Your task to perform on an android device: Go to privacy settings Image 0: 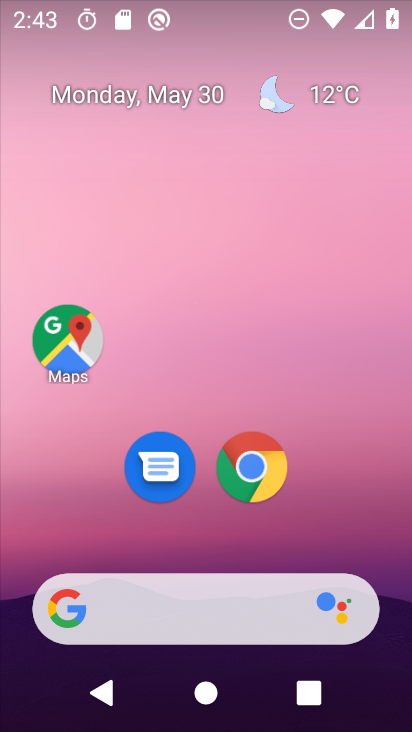
Step 0: drag from (377, 647) to (328, 210)
Your task to perform on an android device: Go to privacy settings Image 1: 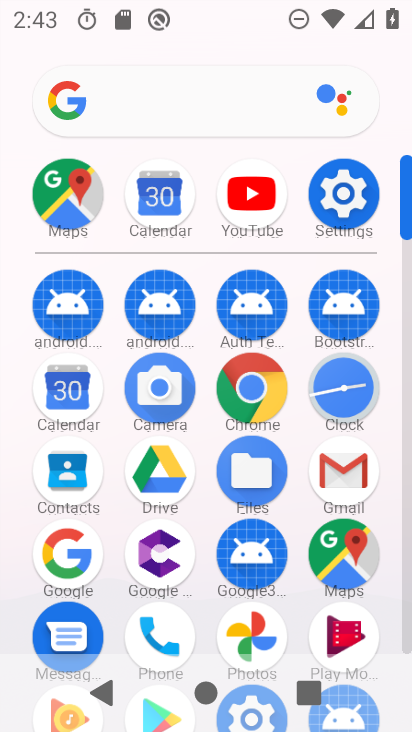
Step 1: click (239, 393)
Your task to perform on an android device: Go to privacy settings Image 2: 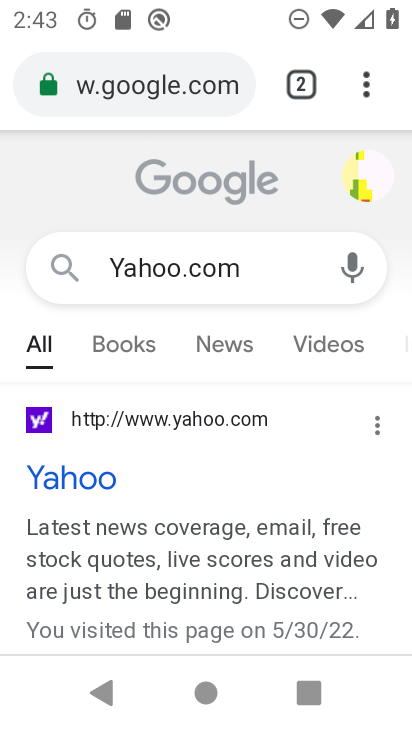
Step 2: click (360, 82)
Your task to perform on an android device: Go to privacy settings Image 3: 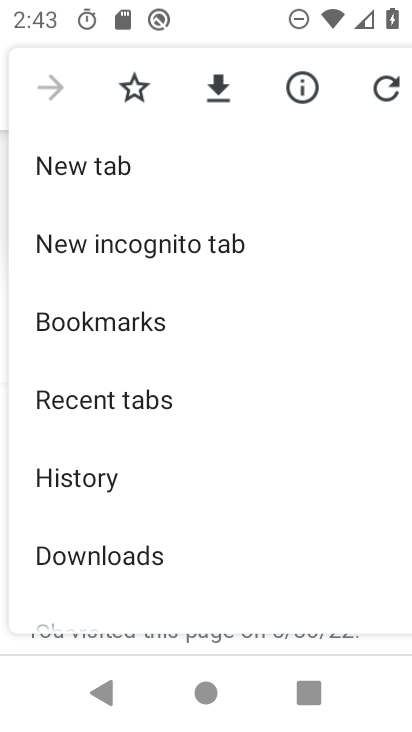
Step 3: drag from (234, 571) to (202, 262)
Your task to perform on an android device: Go to privacy settings Image 4: 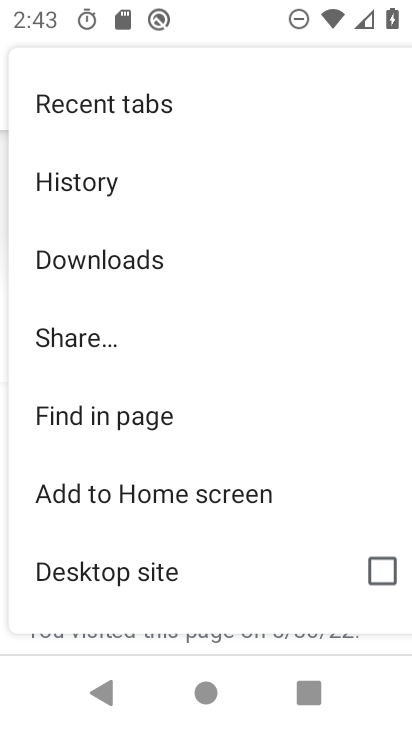
Step 4: drag from (262, 586) to (215, 258)
Your task to perform on an android device: Go to privacy settings Image 5: 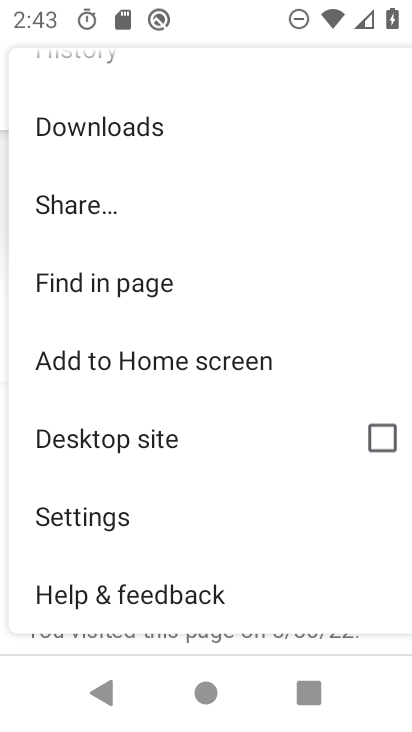
Step 5: click (100, 512)
Your task to perform on an android device: Go to privacy settings Image 6: 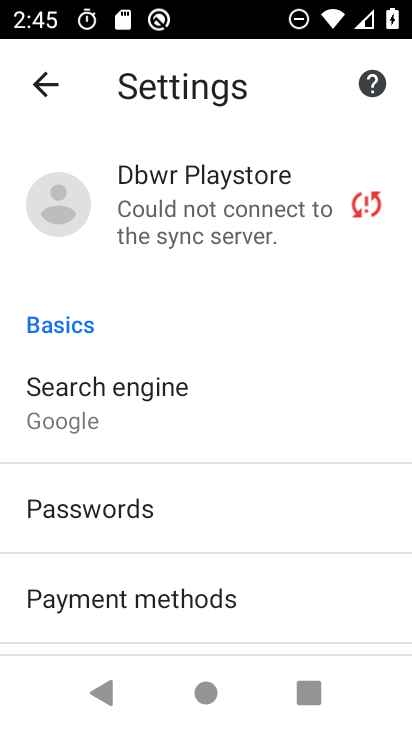
Step 6: drag from (252, 592) to (246, 347)
Your task to perform on an android device: Go to privacy settings Image 7: 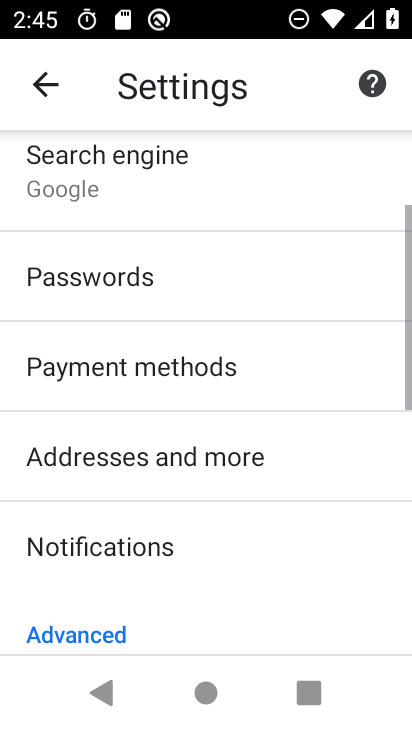
Step 7: drag from (255, 583) to (250, 415)
Your task to perform on an android device: Go to privacy settings Image 8: 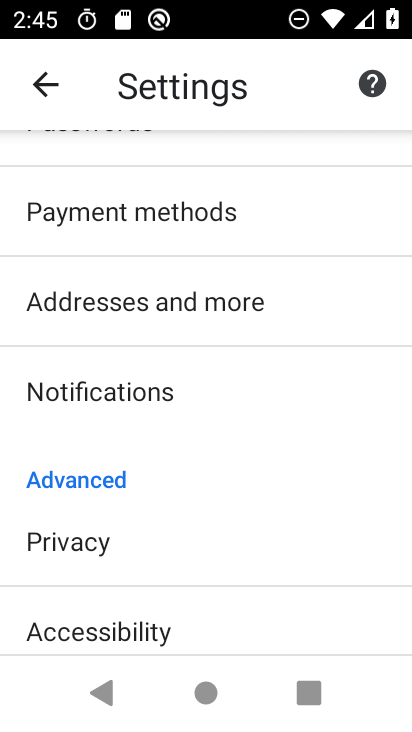
Step 8: click (66, 545)
Your task to perform on an android device: Go to privacy settings Image 9: 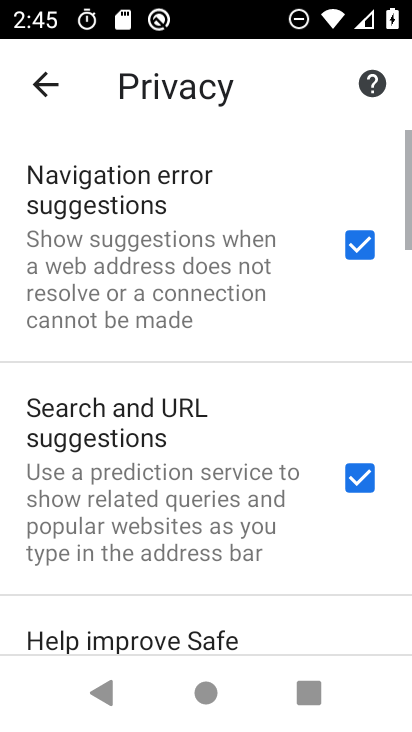
Step 9: task complete